Your task to perform on an android device: set the stopwatch Image 0: 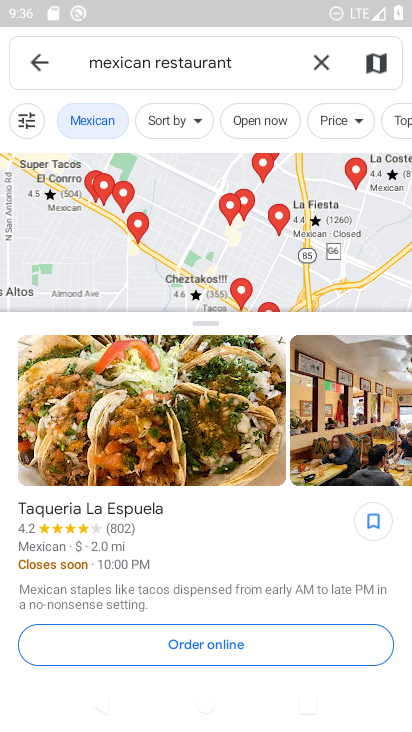
Step 0: press home button
Your task to perform on an android device: set the stopwatch Image 1: 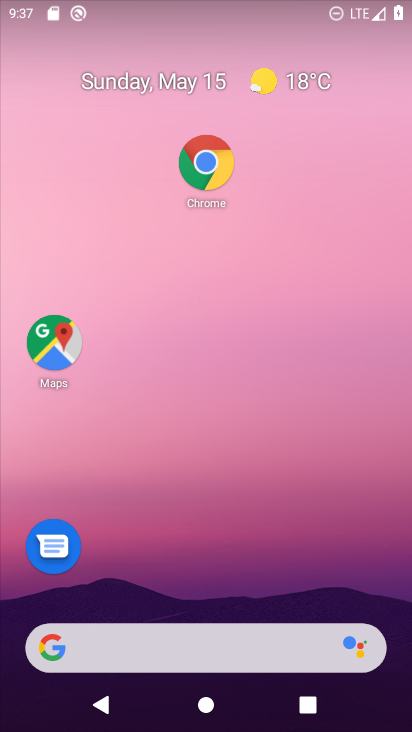
Step 1: drag from (203, 630) to (192, 211)
Your task to perform on an android device: set the stopwatch Image 2: 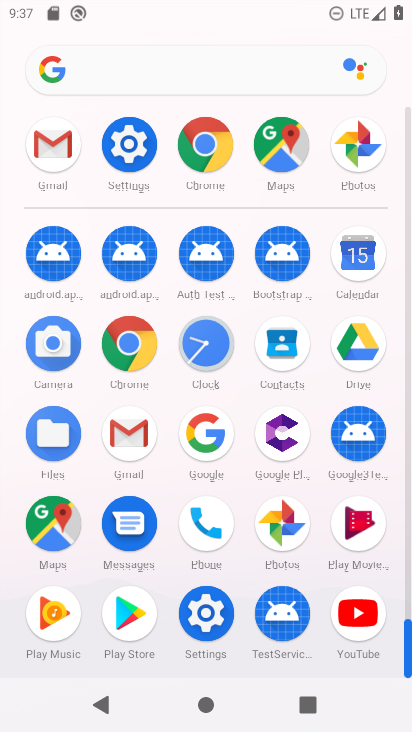
Step 2: click (196, 336)
Your task to perform on an android device: set the stopwatch Image 3: 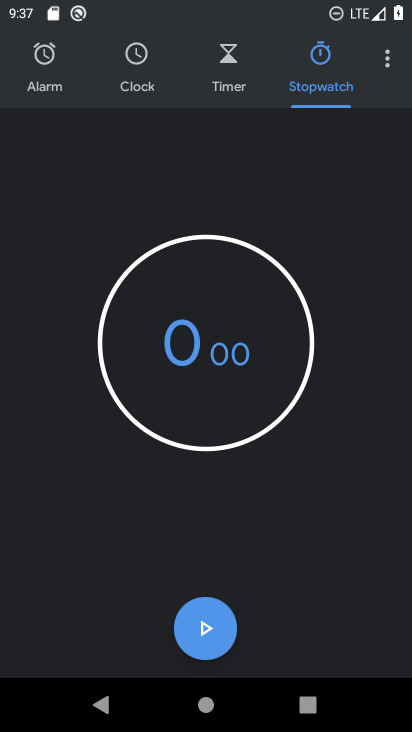
Step 3: task complete